Your task to perform on an android device: turn off javascript in the chrome app Image 0: 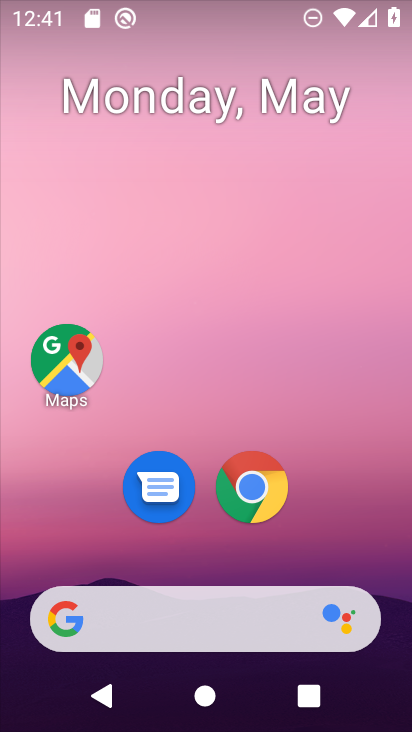
Step 0: click (254, 486)
Your task to perform on an android device: turn off javascript in the chrome app Image 1: 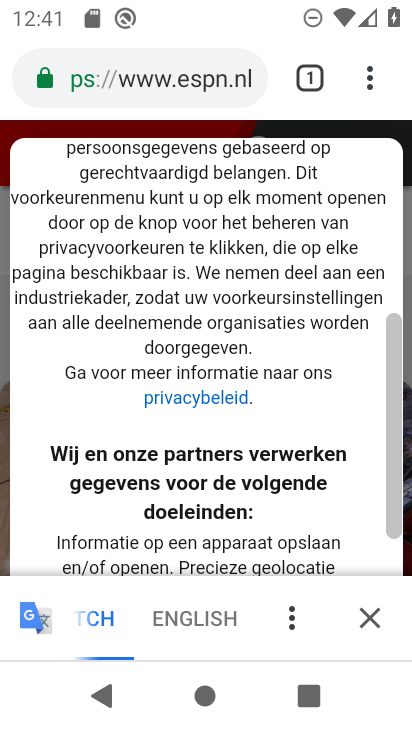
Step 1: click (370, 77)
Your task to perform on an android device: turn off javascript in the chrome app Image 2: 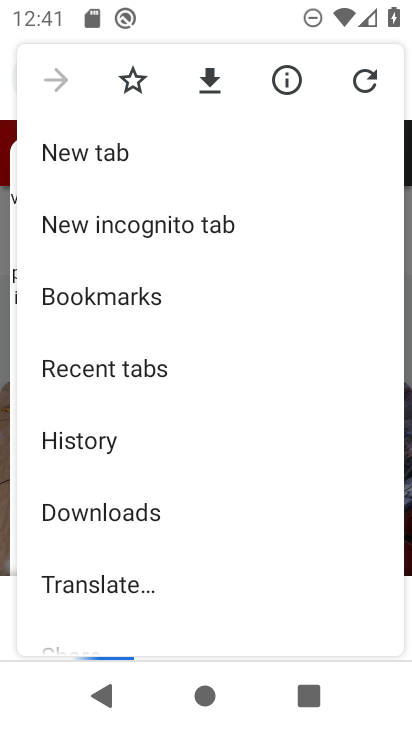
Step 2: drag from (141, 441) to (193, 355)
Your task to perform on an android device: turn off javascript in the chrome app Image 3: 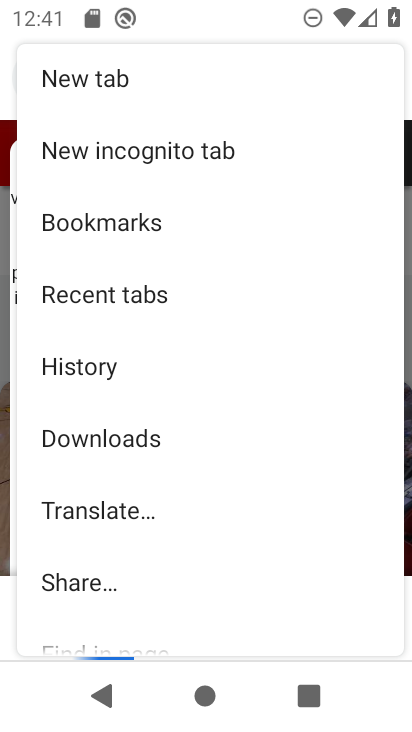
Step 3: drag from (133, 407) to (162, 344)
Your task to perform on an android device: turn off javascript in the chrome app Image 4: 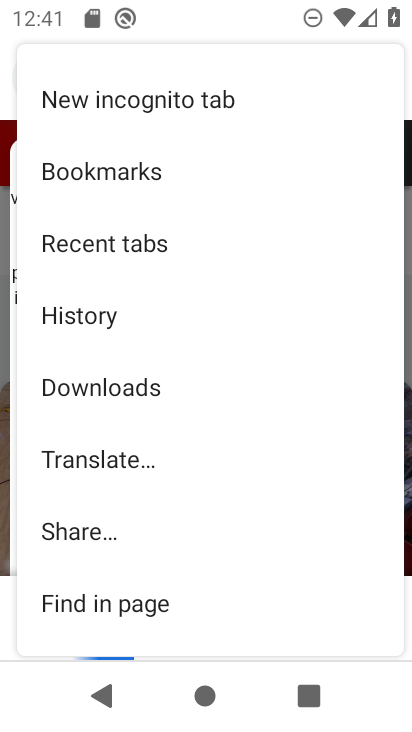
Step 4: drag from (108, 427) to (135, 363)
Your task to perform on an android device: turn off javascript in the chrome app Image 5: 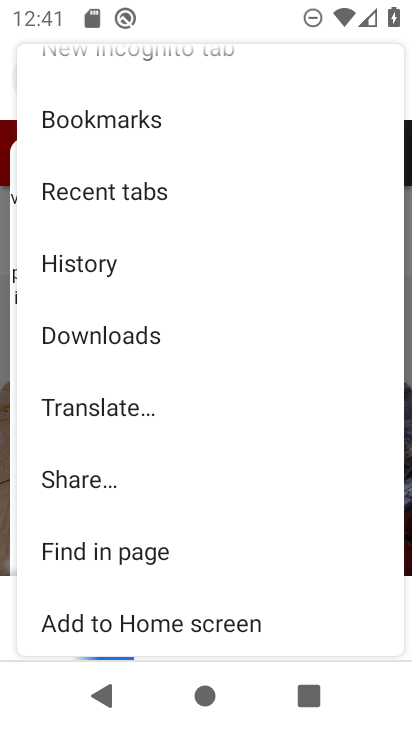
Step 5: drag from (98, 432) to (137, 367)
Your task to perform on an android device: turn off javascript in the chrome app Image 6: 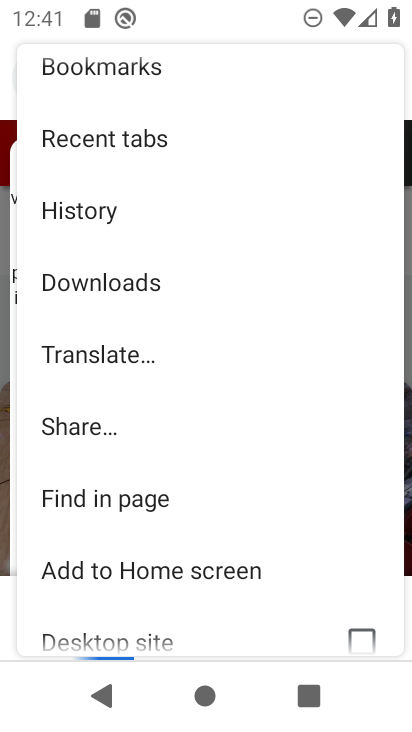
Step 6: drag from (92, 460) to (135, 390)
Your task to perform on an android device: turn off javascript in the chrome app Image 7: 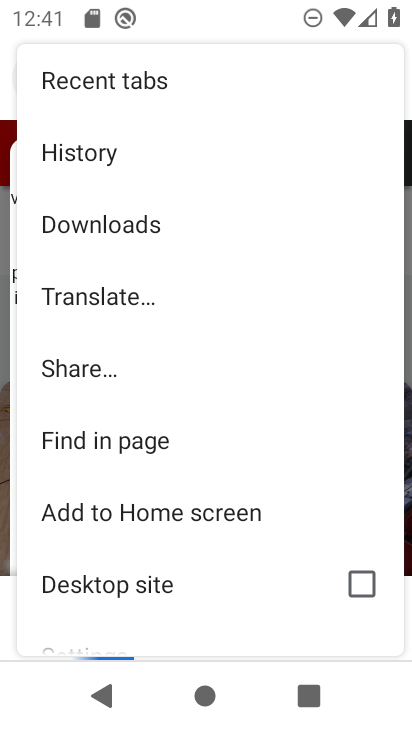
Step 7: drag from (92, 453) to (145, 368)
Your task to perform on an android device: turn off javascript in the chrome app Image 8: 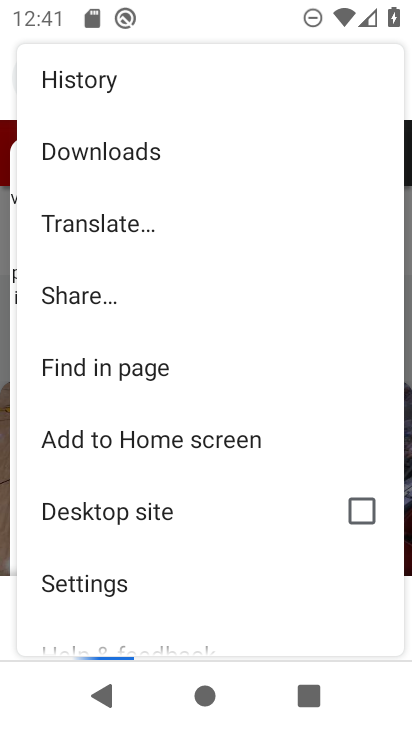
Step 8: drag from (99, 463) to (160, 385)
Your task to perform on an android device: turn off javascript in the chrome app Image 9: 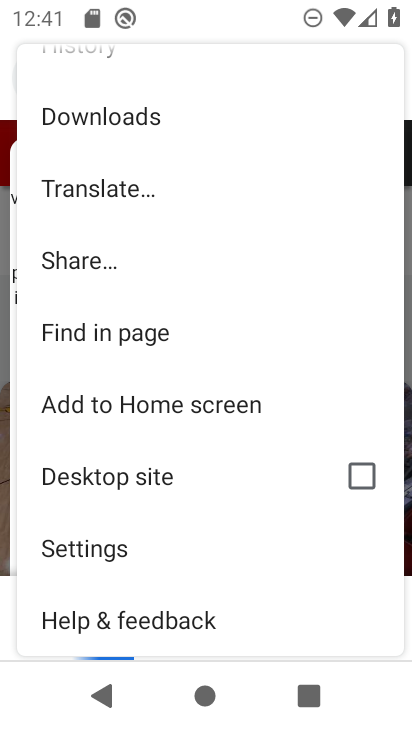
Step 9: click (87, 555)
Your task to perform on an android device: turn off javascript in the chrome app Image 10: 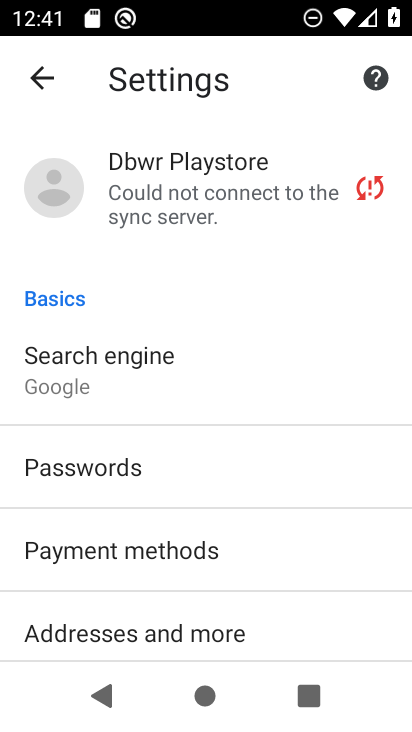
Step 10: drag from (149, 407) to (187, 337)
Your task to perform on an android device: turn off javascript in the chrome app Image 11: 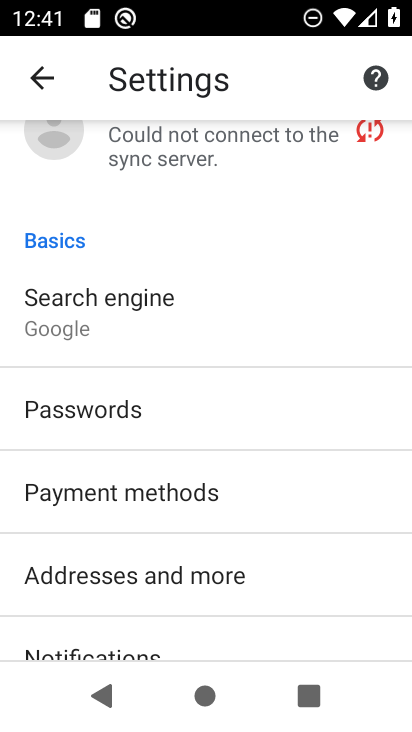
Step 11: drag from (111, 460) to (205, 353)
Your task to perform on an android device: turn off javascript in the chrome app Image 12: 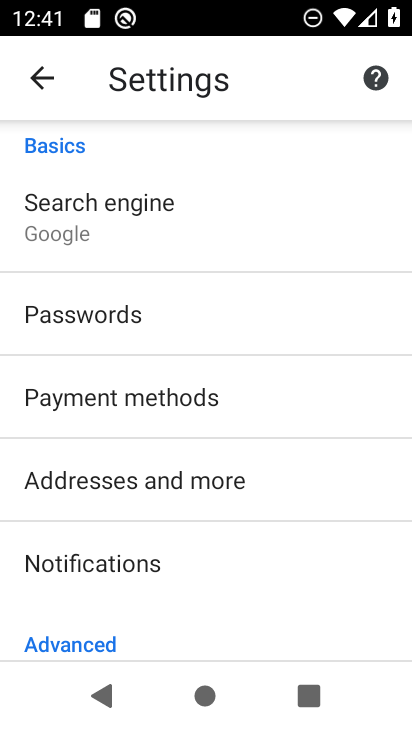
Step 12: drag from (121, 498) to (200, 394)
Your task to perform on an android device: turn off javascript in the chrome app Image 13: 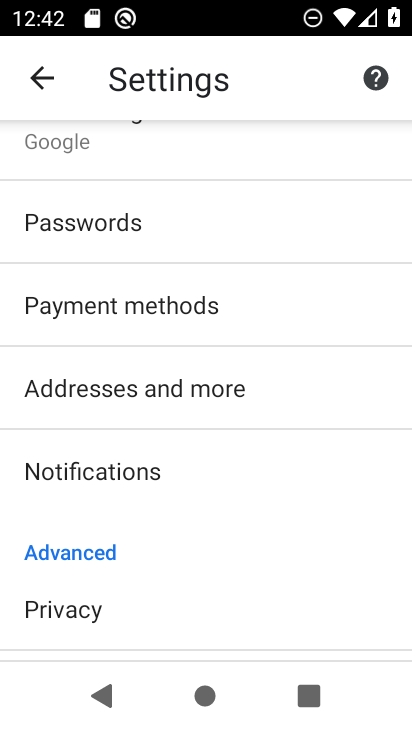
Step 13: drag from (95, 508) to (160, 411)
Your task to perform on an android device: turn off javascript in the chrome app Image 14: 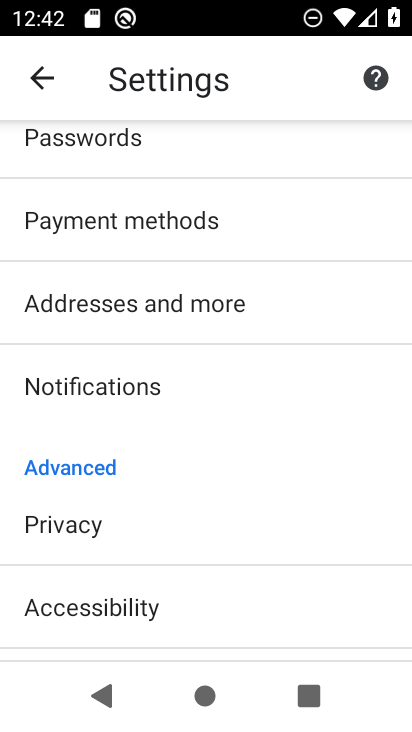
Step 14: drag from (94, 489) to (159, 401)
Your task to perform on an android device: turn off javascript in the chrome app Image 15: 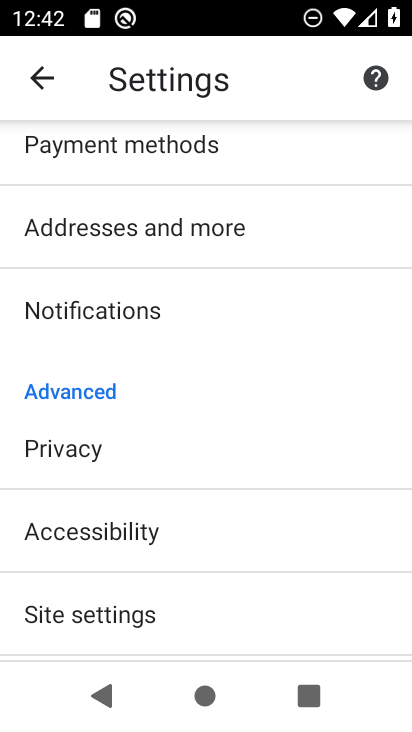
Step 15: drag from (87, 461) to (126, 388)
Your task to perform on an android device: turn off javascript in the chrome app Image 16: 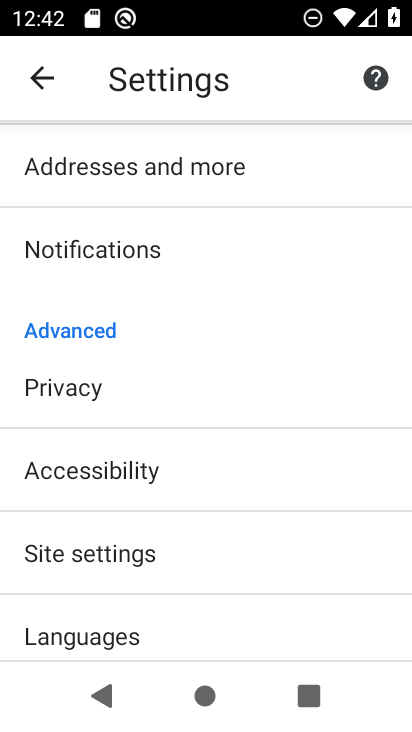
Step 16: drag from (80, 487) to (149, 388)
Your task to perform on an android device: turn off javascript in the chrome app Image 17: 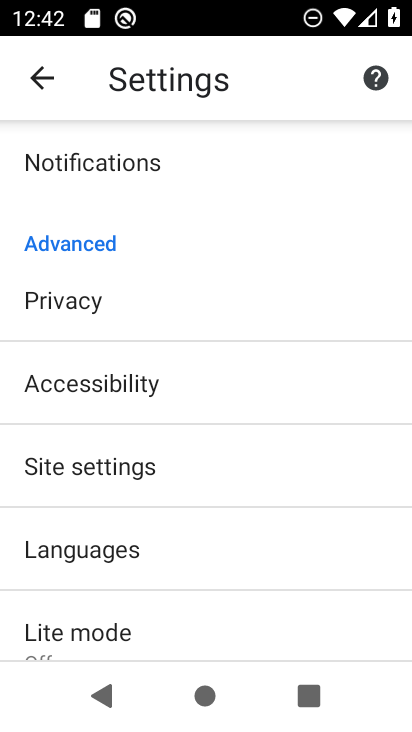
Step 17: click (109, 478)
Your task to perform on an android device: turn off javascript in the chrome app Image 18: 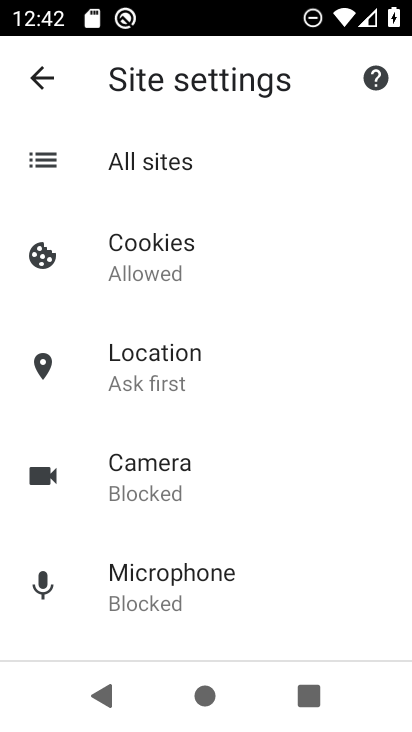
Step 18: drag from (152, 523) to (200, 413)
Your task to perform on an android device: turn off javascript in the chrome app Image 19: 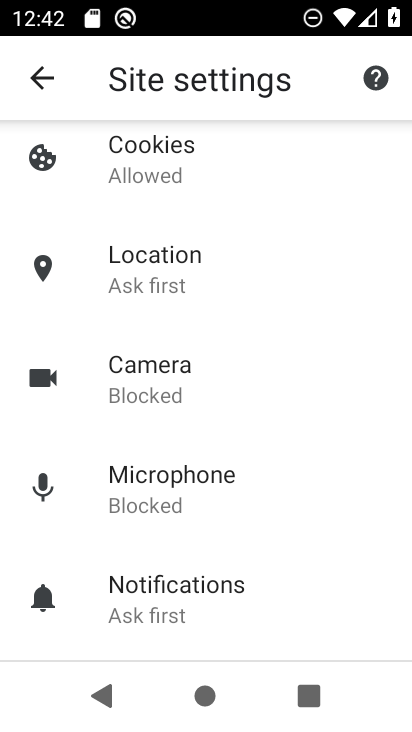
Step 19: drag from (149, 543) to (204, 443)
Your task to perform on an android device: turn off javascript in the chrome app Image 20: 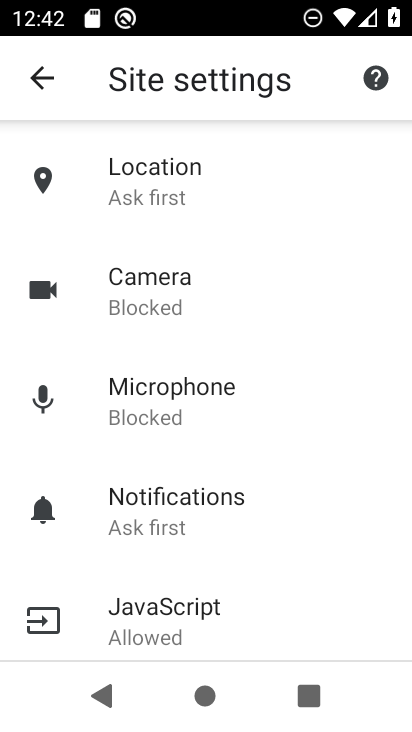
Step 20: drag from (152, 564) to (211, 482)
Your task to perform on an android device: turn off javascript in the chrome app Image 21: 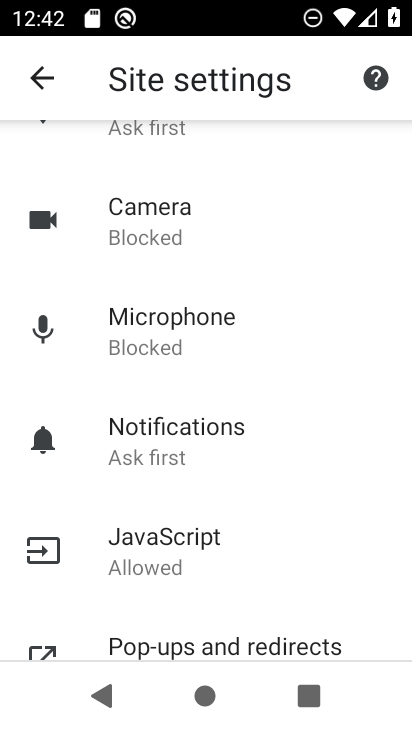
Step 21: drag from (148, 607) to (226, 497)
Your task to perform on an android device: turn off javascript in the chrome app Image 22: 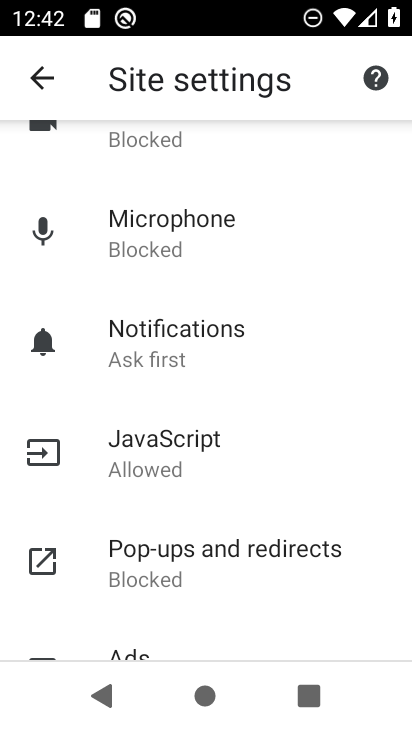
Step 22: click (192, 449)
Your task to perform on an android device: turn off javascript in the chrome app Image 23: 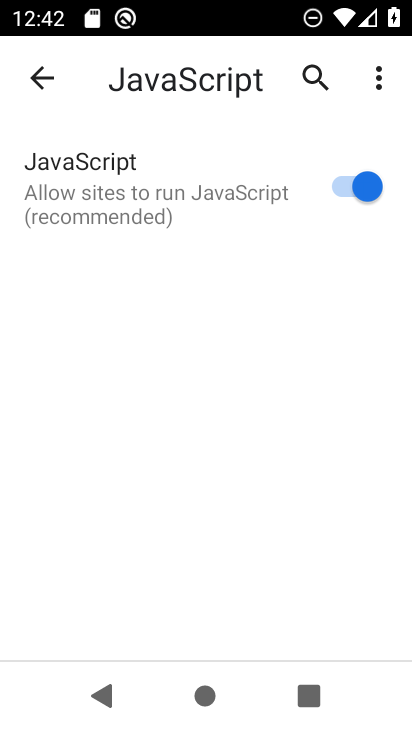
Step 23: click (352, 192)
Your task to perform on an android device: turn off javascript in the chrome app Image 24: 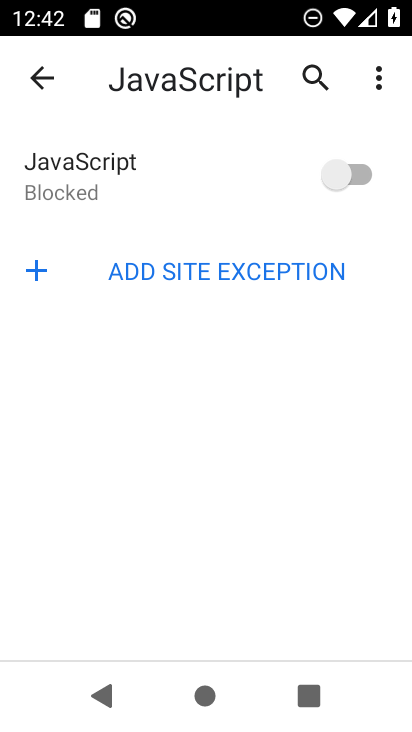
Step 24: task complete